Your task to perform on an android device: turn off notifications settings in the gmail app Image 0: 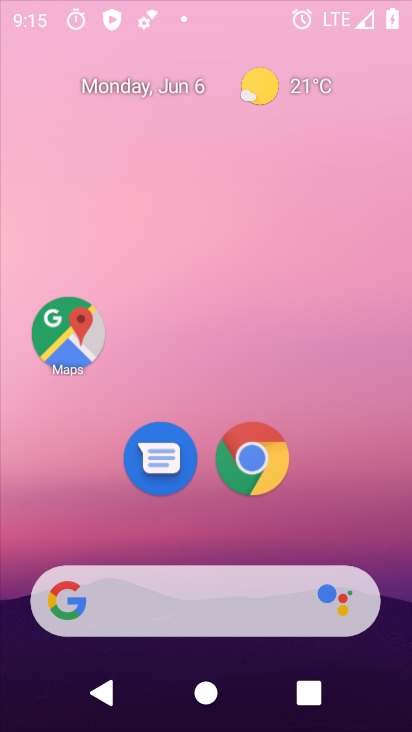
Step 0: drag from (269, 198) to (214, 107)
Your task to perform on an android device: turn off notifications settings in the gmail app Image 1: 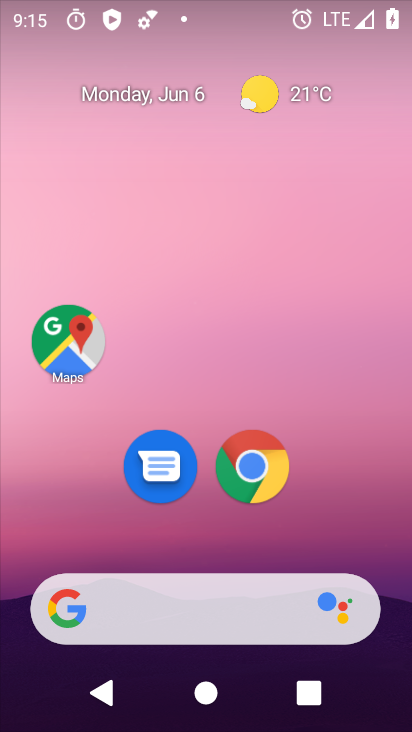
Step 1: drag from (210, 484) to (224, 16)
Your task to perform on an android device: turn off notifications settings in the gmail app Image 2: 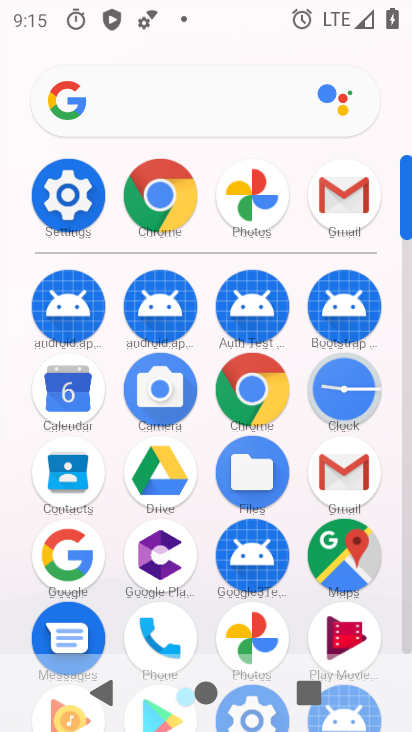
Step 2: click (342, 478)
Your task to perform on an android device: turn off notifications settings in the gmail app Image 3: 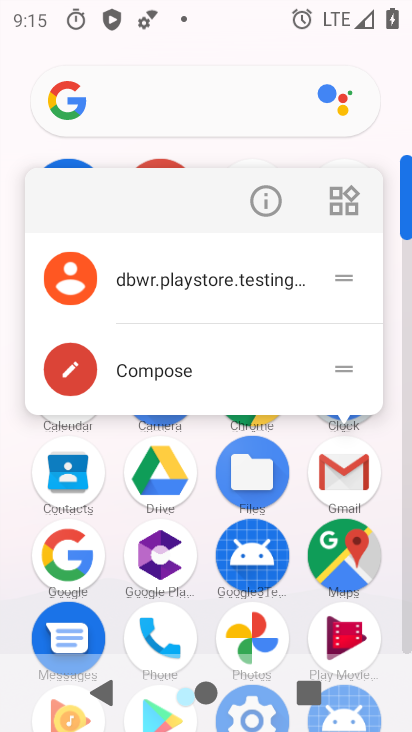
Step 3: click (262, 187)
Your task to perform on an android device: turn off notifications settings in the gmail app Image 4: 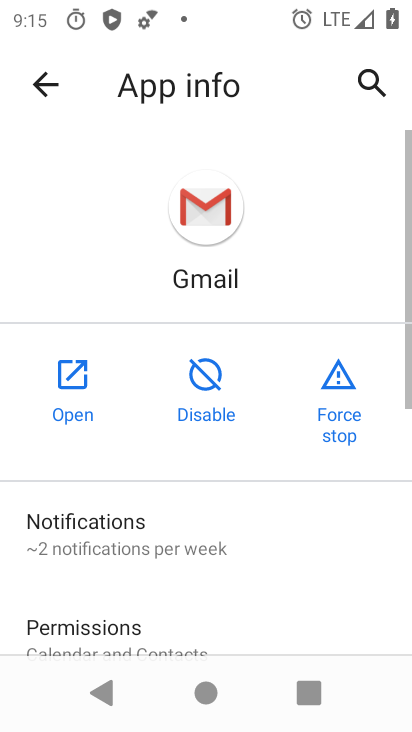
Step 4: click (70, 387)
Your task to perform on an android device: turn off notifications settings in the gmail app Image 5: 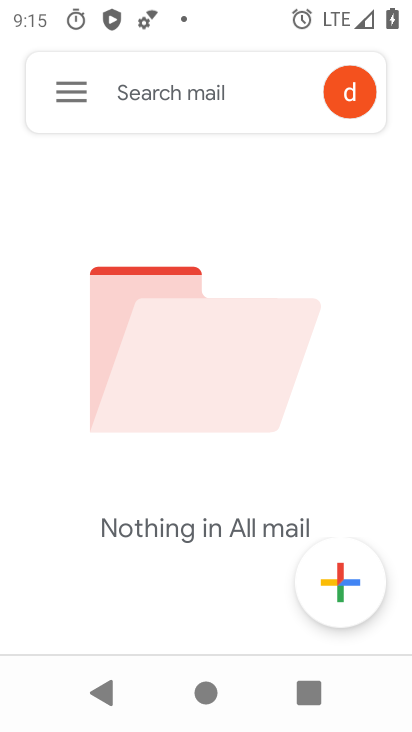
Step 5: drag from (171, 574) to (179, 75)
Your task to perform on an android device: turn off notifications settings in the gmail app Image 6: 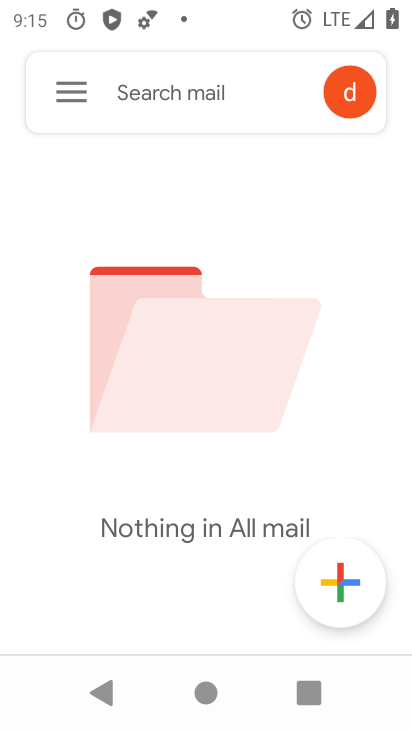
Step 6: click (64, 95)
Your task to perform on an android device: turn off notifications settings in the gmail app Image 7: 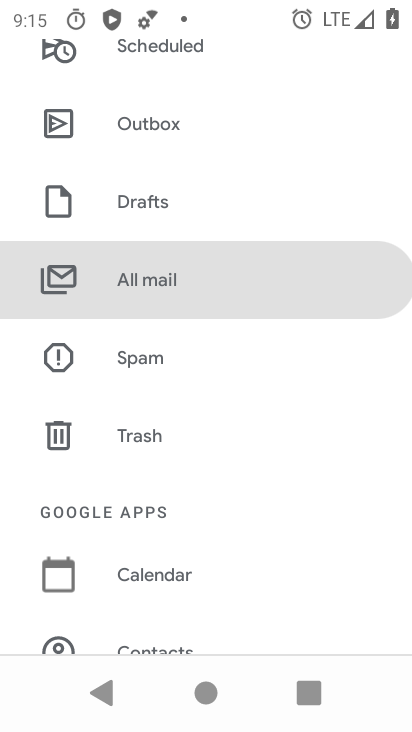
Step 7: drag from (194, 566) to (256, 0)
Your task to perform on an android device: turn off notifications settings in the gmail app Image 8: 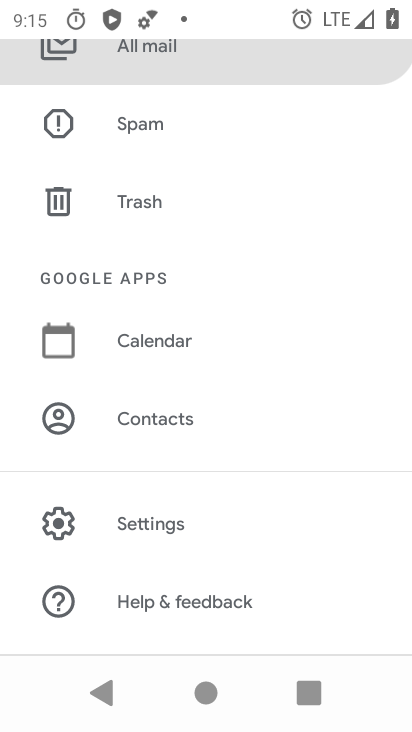
Step 8: click (136, 526)
Your task to perform on an android device: turn off notifications settings in the gmail app Image 9: 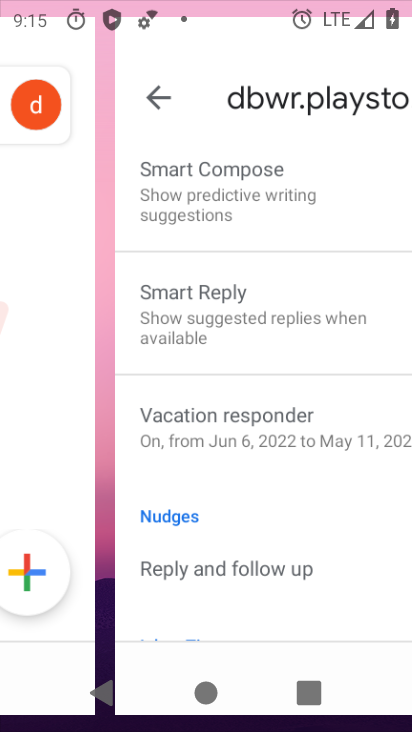
Step 9: drag from (152, 516) to (231, 45)
Your task to perform on an android device: turn off notifications settings in the gmail app Image 10: 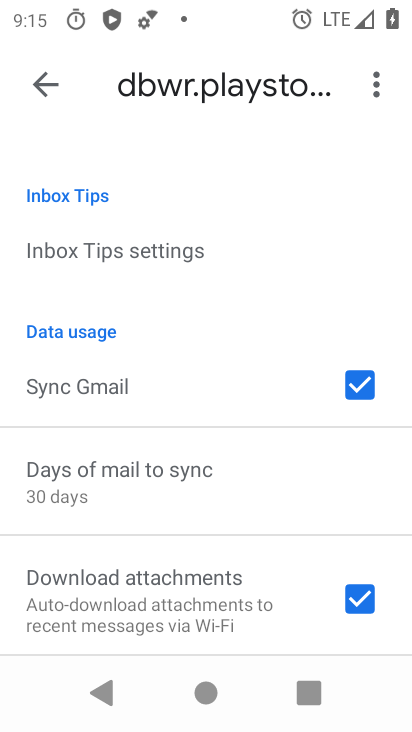
Step 10: drag from (189, 560) to (236, 275)
Your task to perform on an android device: turn off notifications settings in the gmail app Image 11: 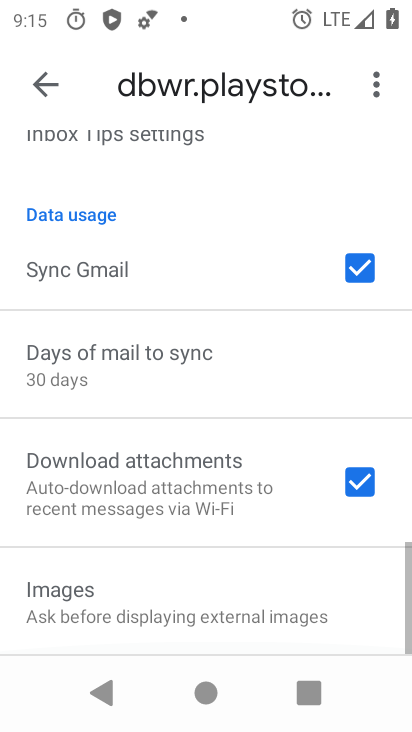
Step 11: drag from (240, 258) to (193, 723)
Your task to perform on an android device: turn off notifications settings in the gmail app Image 12: 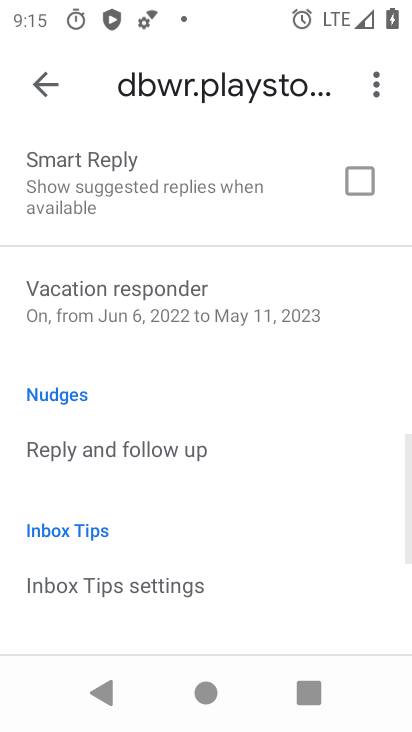
Step 12: drag from (180, 228) to (264, 666)
Your task to perform on an android device: turn off notifications settings in the gmail app Image 13: 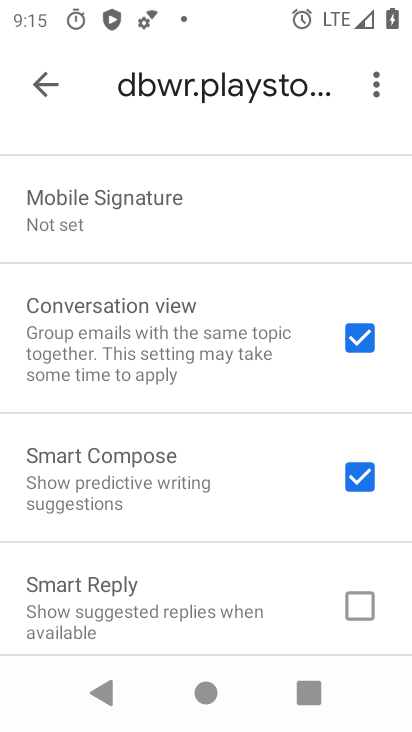
Step 13: drag from (154, 337) to (284, 724)
Your task to perform on an android device: turn off notifications settings in the gmail app Image 14: 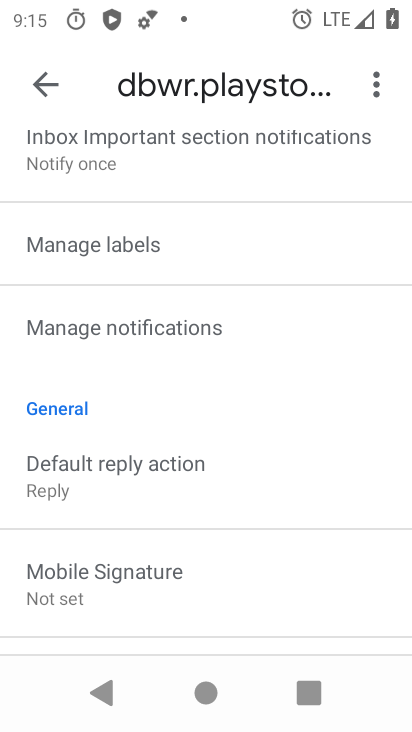
Step 14: click (117, 317)
Your task to perform on an android device: turn off notifications settings in the gmail app Image 15: 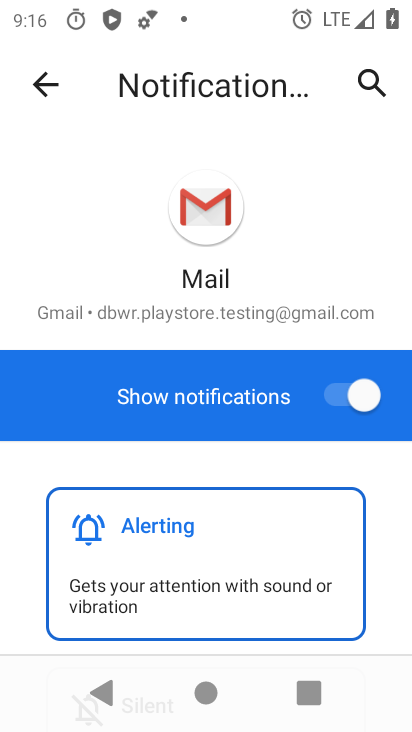
Step 15: click (349, 399)
Your task to perform on an android device: turn off notifications settings in the gmail app Image 16: 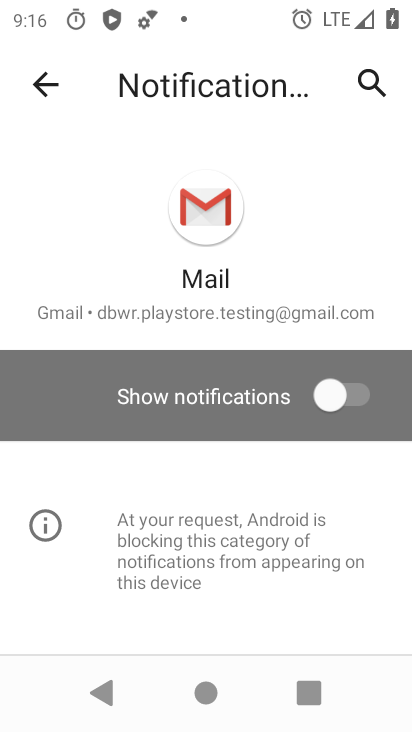
Step 16: task complete